Your task to perform on an android device: Search for "razer deathadder" on bestbuy, select the first entry, add it to the cart, then select checkout. Image 0: 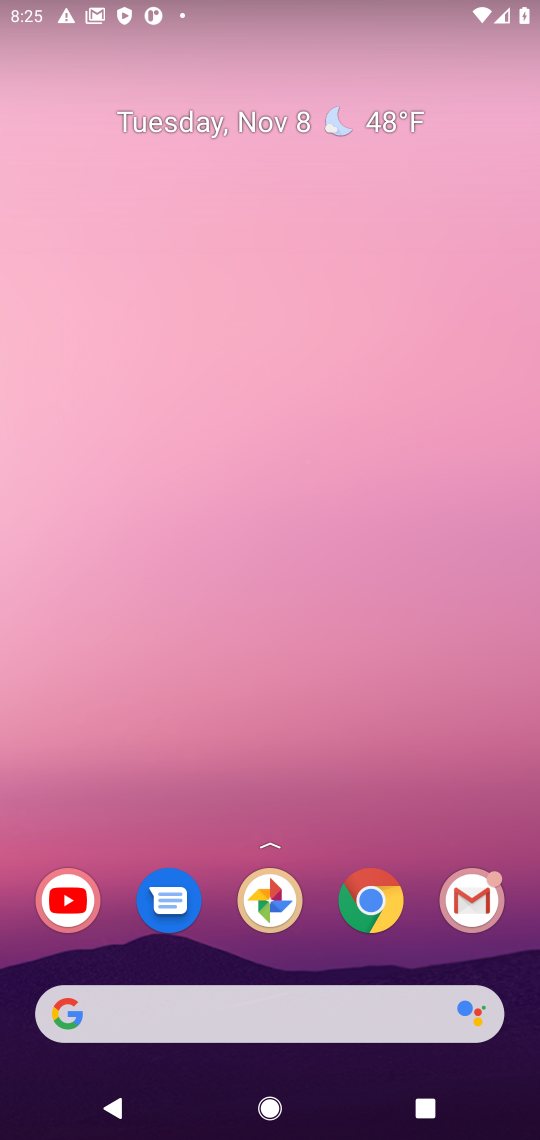
Step 0: click (365, 906)
Your task to perform on an android device: Search for "razer deathadder" on bestbuy, select the first entry, add it to the cart, then select checkout. Image 1: 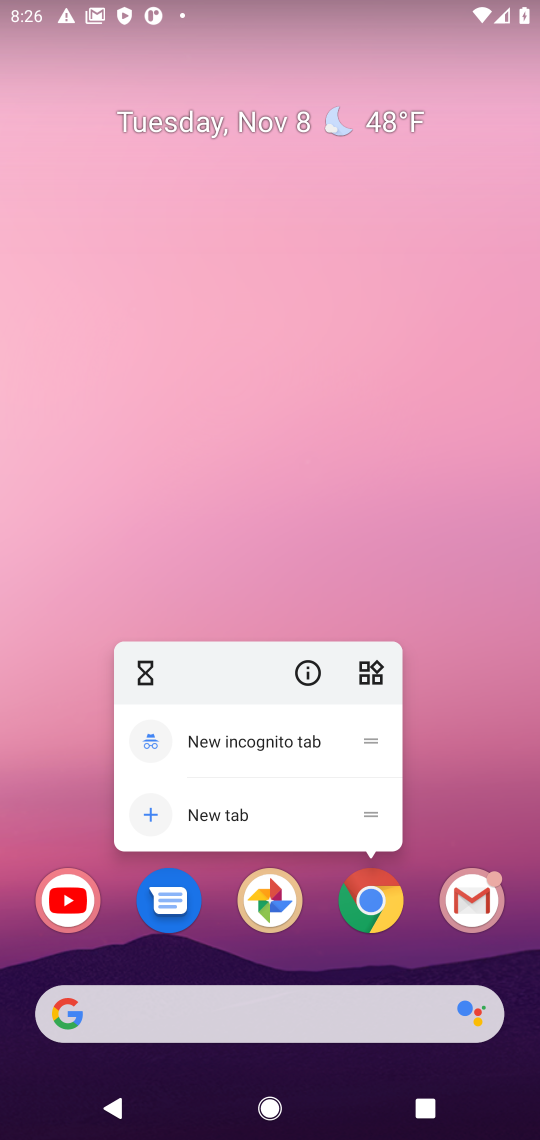
Step 1: click (391, 907)
Your task to perform on an android device: Search for "razer deathadder" on bestbuy, select the first entry, add it to the cart, then select checkout. Image 2: 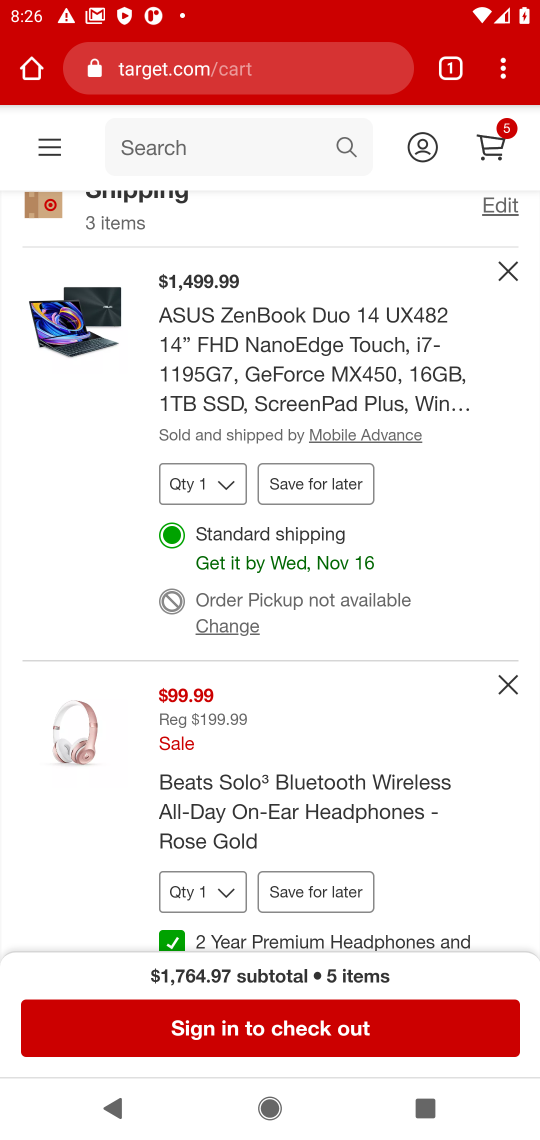
Step 2: click (148, 65)
Your task to perform on an android device: Search for "razer deathadder" on bestbuy, select the first entry, add it to the cart, then select checkout. Image 3: 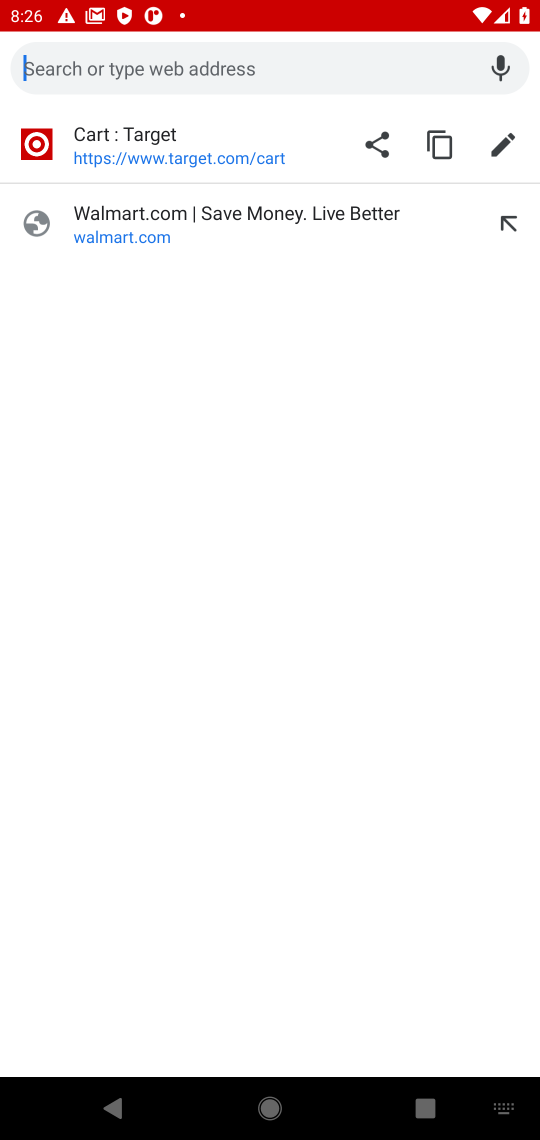
Step 3: type "bestbuy"
Your task to perform on an android device: Search for "razer deathadder" on bestbuy, select the first entry, add it to the cart, then select checkout. Image 4: 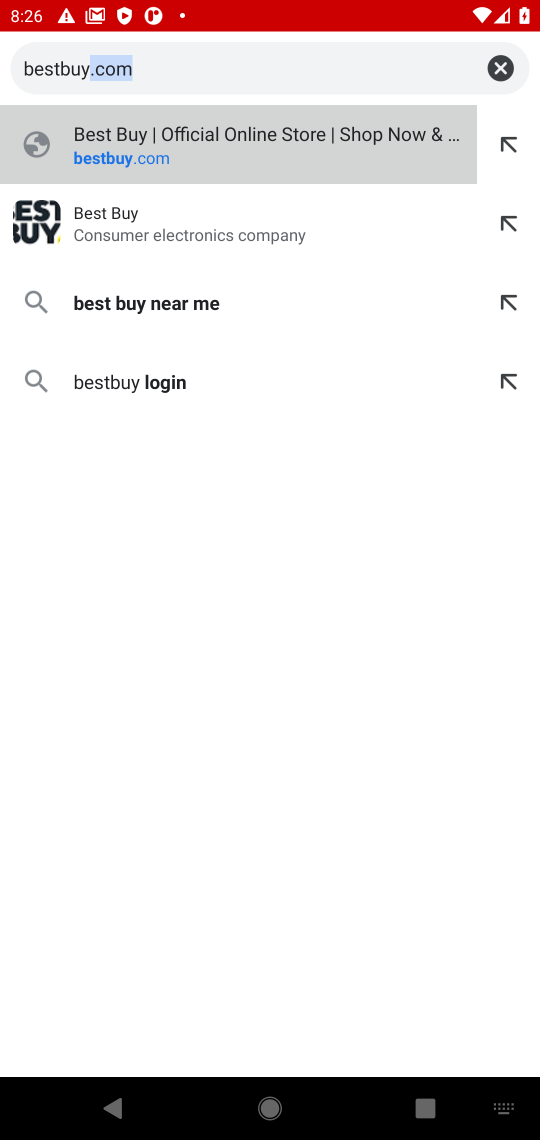
Step 4: click (118, 242)
Your task to perform on an android device: Search for "razer deathadder" on bestbuy, select the first entry, add it to the cart, then select checkout. Image 5: 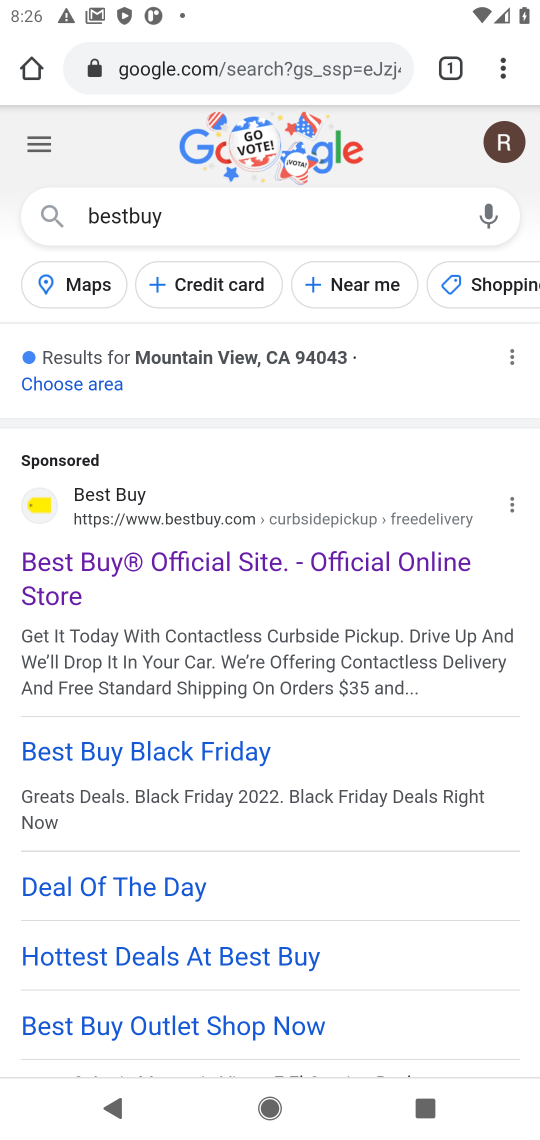
Step 5: drag from (288, 676) to (304, 91)
Your task to perform on an android device: Search for "razer deathadder" on bestbuy, select the first entry, add it to the cart, then select checkout. Image 6: 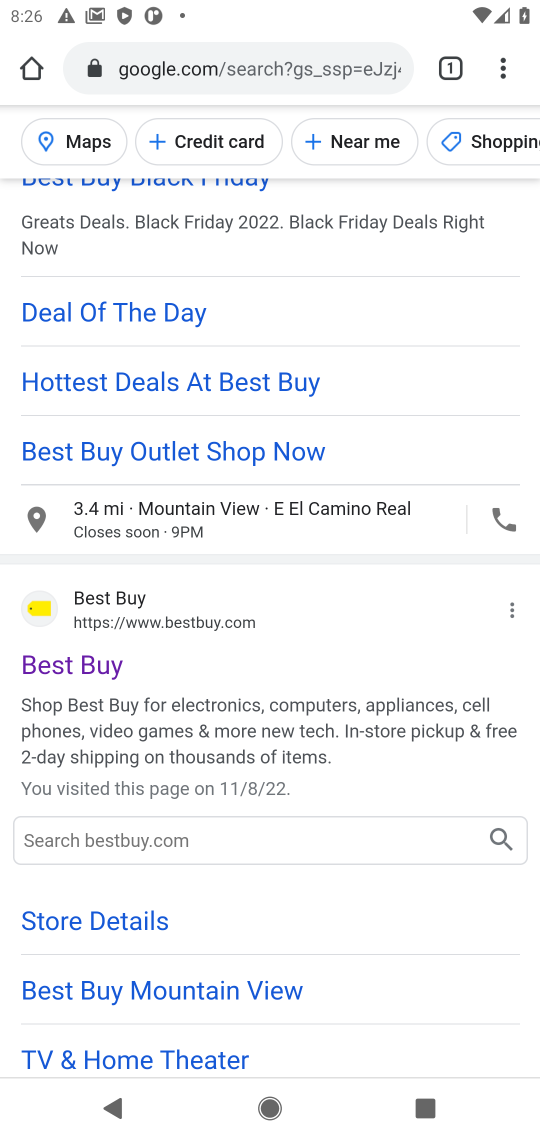
Step 6: click (100, 663)
Your task to perform on an android device: Search for "razer deathadder" on bestbuy, select the first entry, add it to the cart, then select checkout. Image 7: 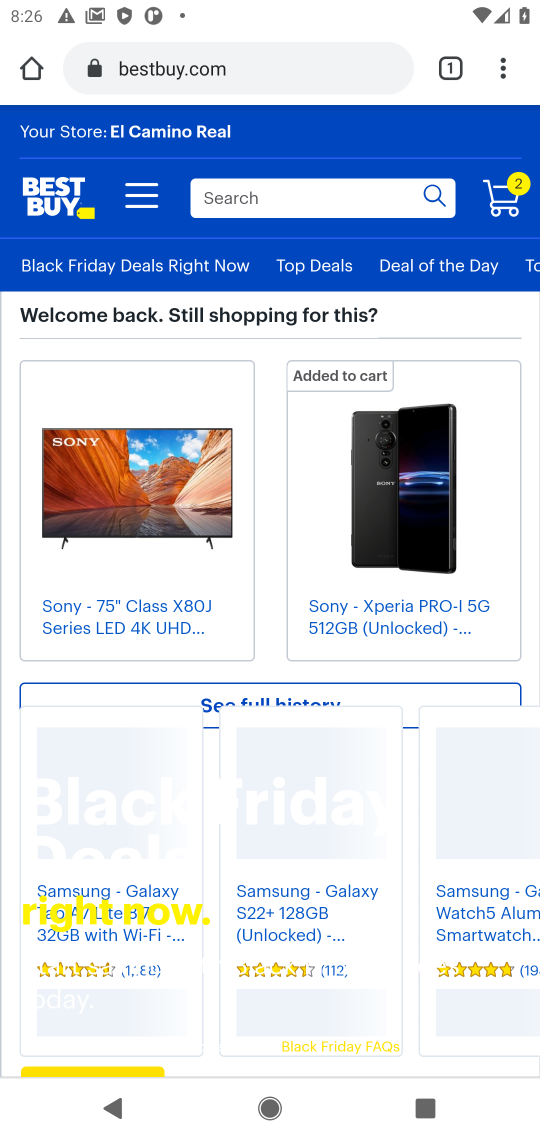
Step 7: click (256, 195)
Your task to perform on an android device: Search for "razer deathadder" on bestbuy, select the first entry, add it to the cart, then select checkout. Image 8: 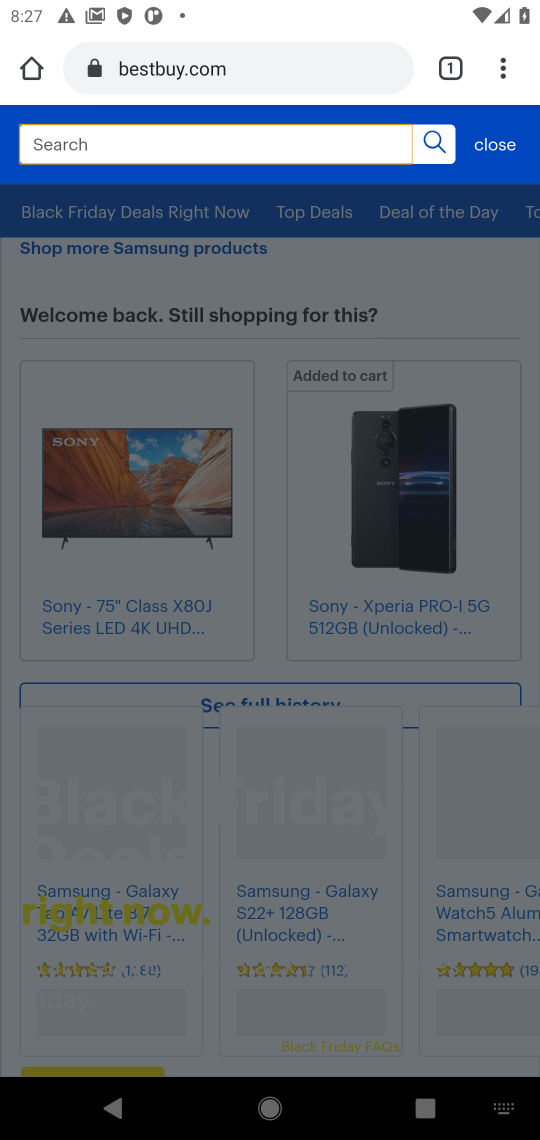
Step 8: type "razer deathadder"
Your task to perform on an android device: Search for "razer deathadder" on bestbuy, select the first entry, add it to the cart, then select checkout. Image 9: 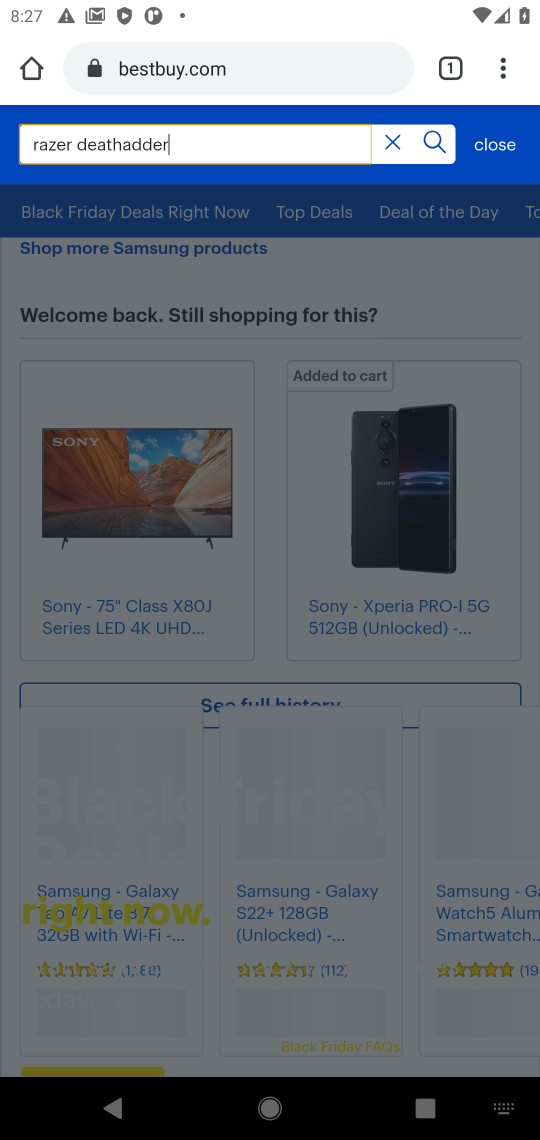
Step 9: type ""
Your task to perform on an android device: Search for "razer deathadder" on bestbuy, select the first entry, add it to the cart, then select checkout. Image 10: 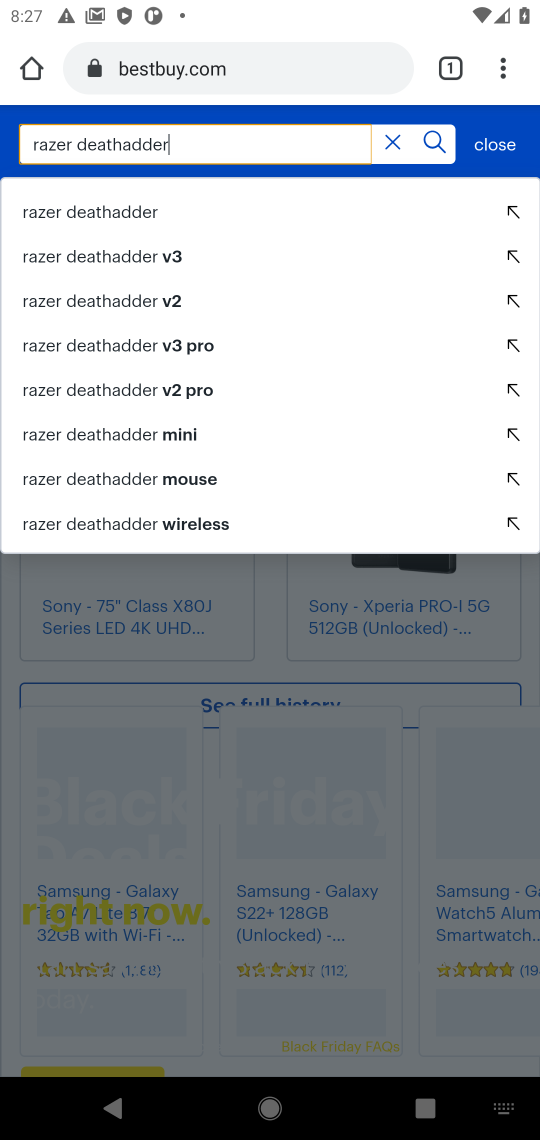
Step 10: click (104, 216)
Your task to perform on an android device: Search for "razer deathadder" on bestbuy, select the first entry, add it to the cart, then select checkout. Image 11: 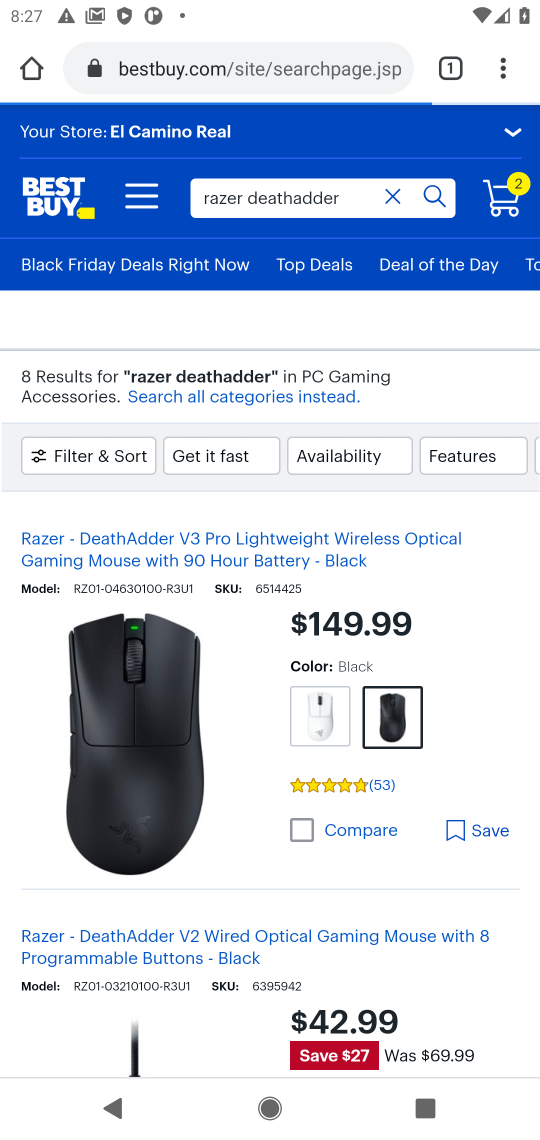
Step 11: drag from (148, 820) to (159, 468)
Your task to perform on an android device: Search for "razer deathadder" on bestbuy, select the first entry, add it to the cart, then select checkout. Image 12: 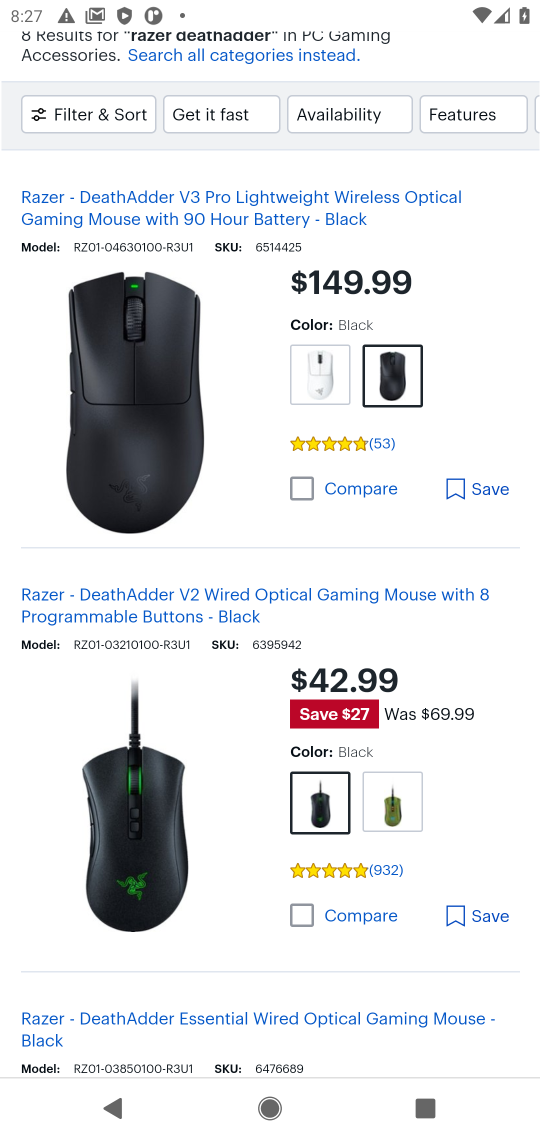
Step 12: click (145, 345)
Your task to perform on an android device: Search for "razer deathadder" on bestbuy, select the first entry, add it to the cart, then select checkout. Image 13: 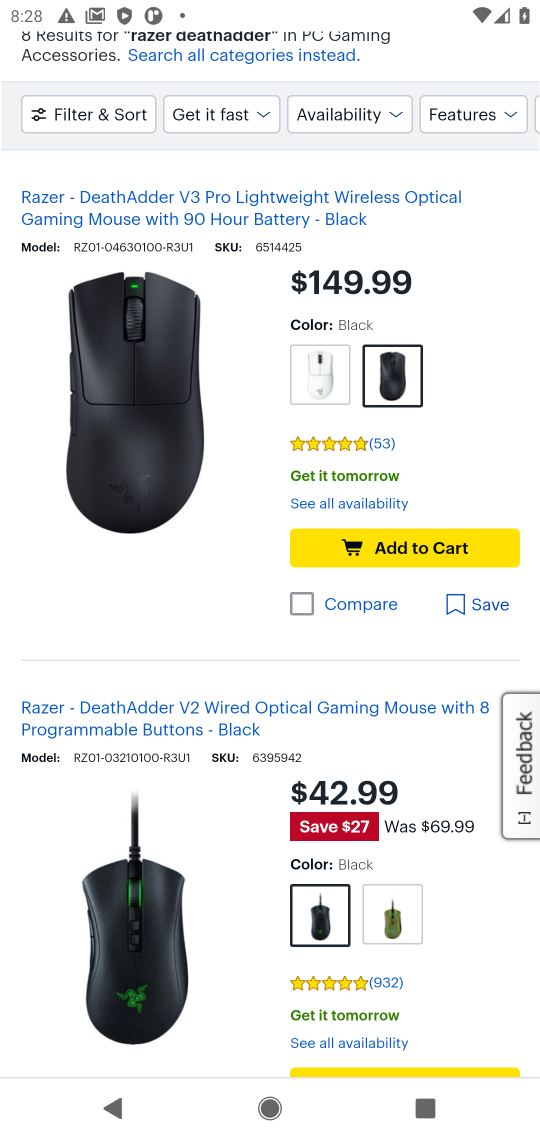
Step 13: click (449, 541)
Your task to perform on an android device: Search for "razer deathadder" on bestbuy, select the first entry, add it to the cart, then select checkout. Image 14: 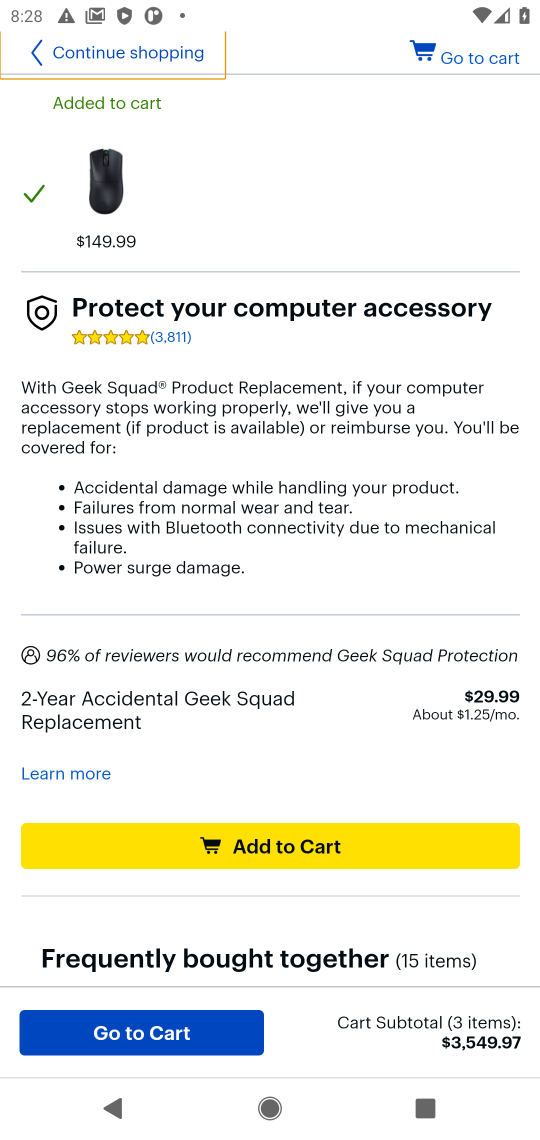
Step 14: click (293, 849)
Your task to perform on an android device: Search for "razer deathadder" on bestbuy, select the first entry, add it to the cart, then select checkout. Image 15: 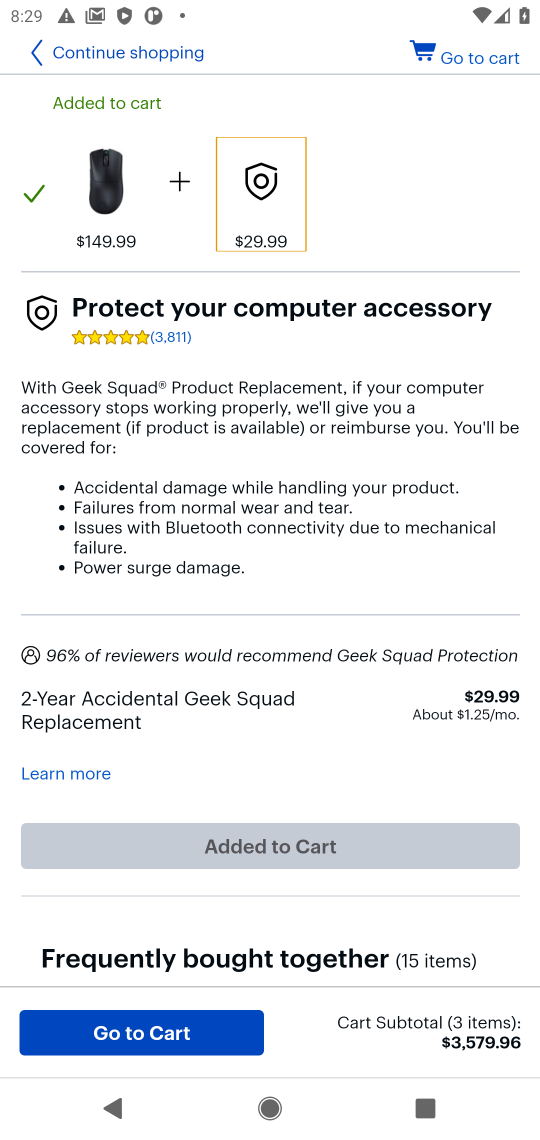
Step 15: click (162, 1032)
Your task to perform on an android device: Search for "razer deathadder" on bestbuy, select the first entry, add it to the cart, then select checkout. Image 16: 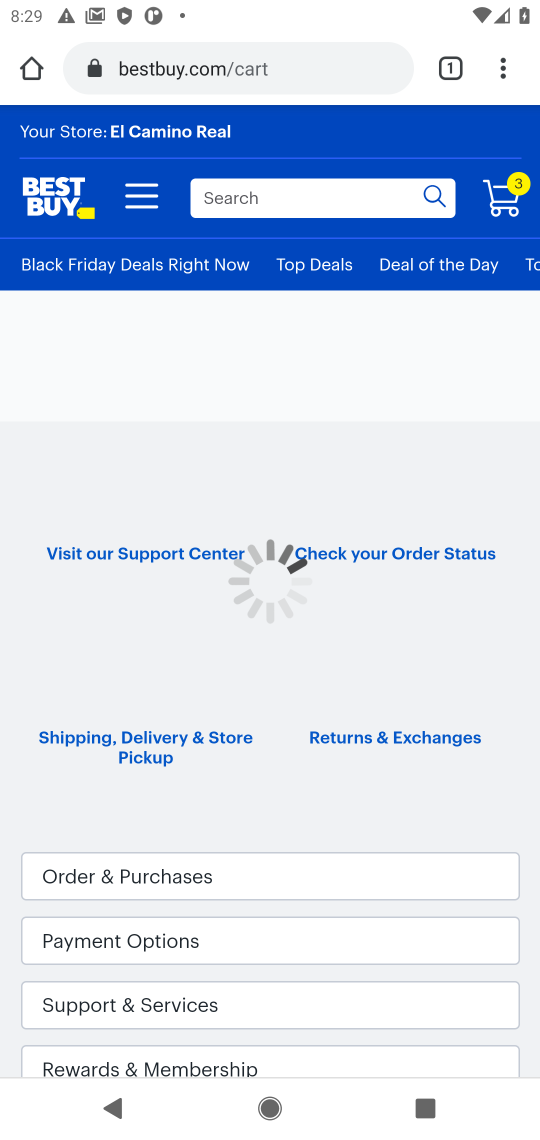
Step 16: click (504, 196)
Your task to perform on an android device: Search for "razer deathadder" on bestbuy, select the first entry, add it to the cart, then select checkout. Image 17: 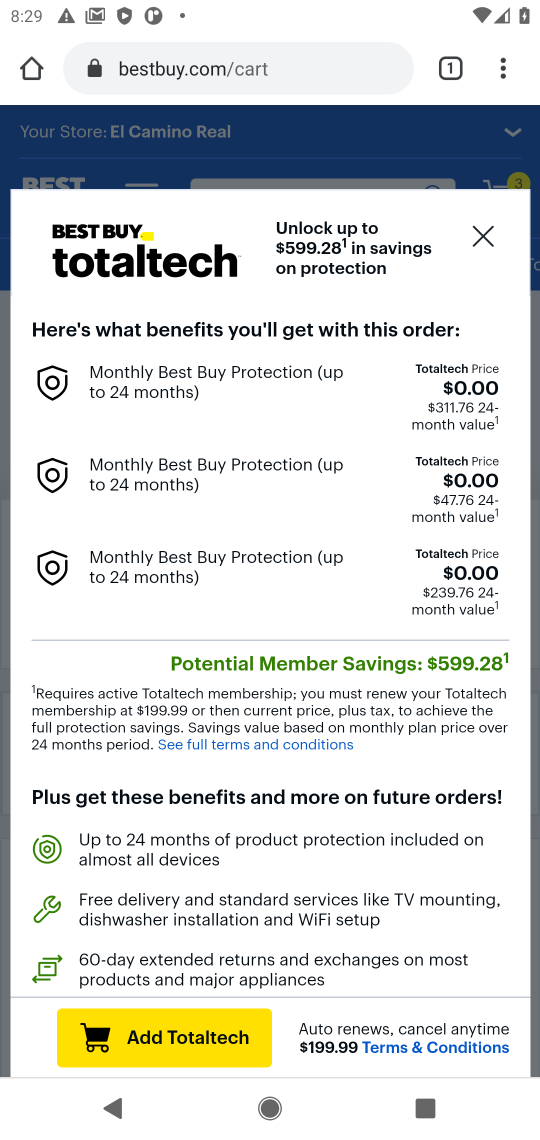
Step 17: click (489, 241)
Your task to perform on an android device: Search for "razer deathadder" on bestbuy, select the first entry, add it to the cart, then select checkout. Image 18: 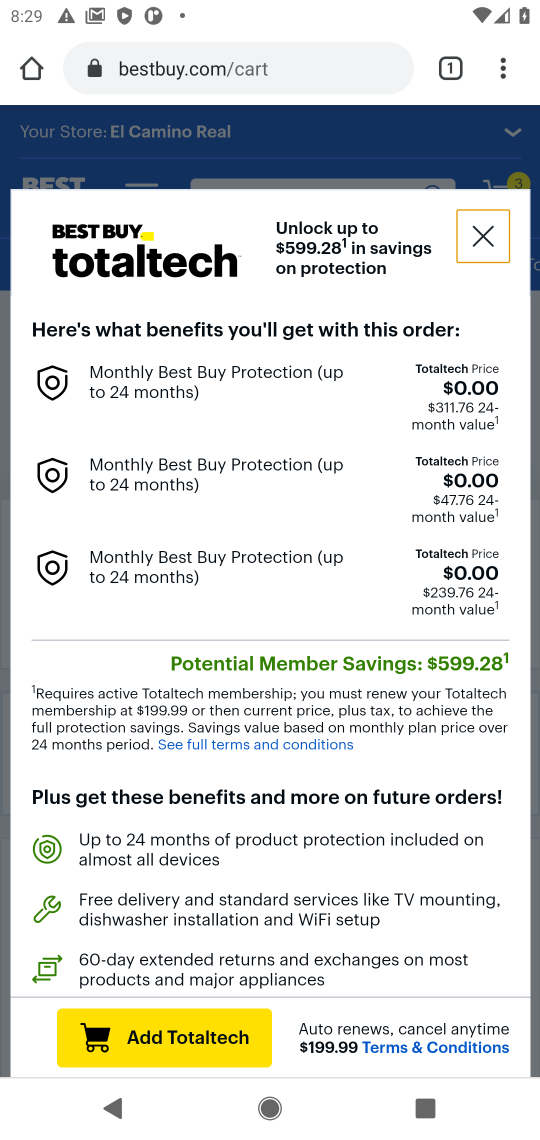
Step 18: click (487, 239)
Your task to perform on an android device: Search for "razer deathadder" on bestbuy, select the first entry, add it to the cart, then select checkout. Image 19: 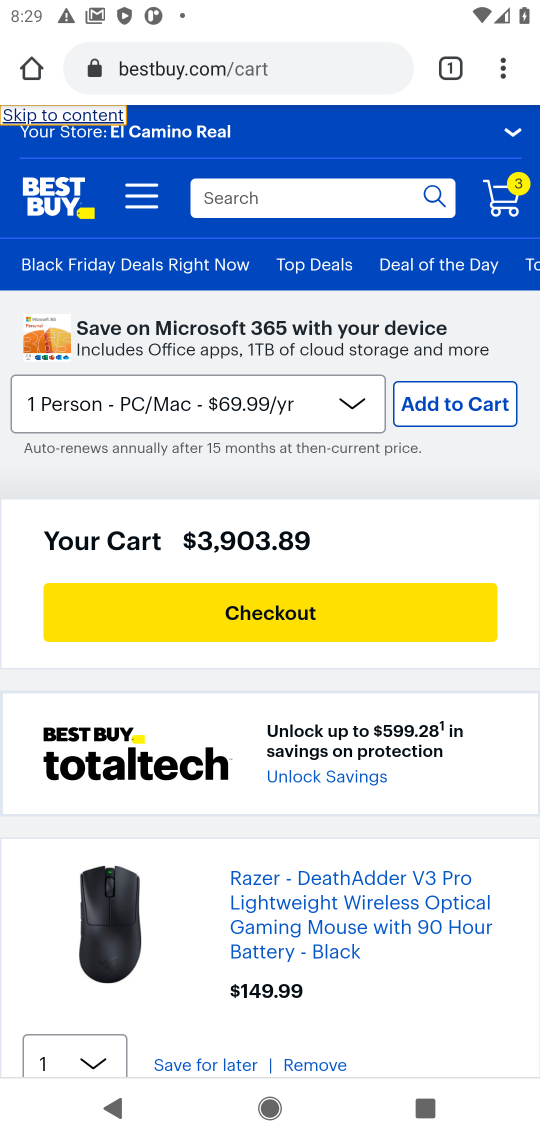
Step 19: click (281, 624)
Your task to perform on an android device: Search for "razer deathadder" on bestbuy, select the first entry, add it to the cart, then select checkout. Image 20: 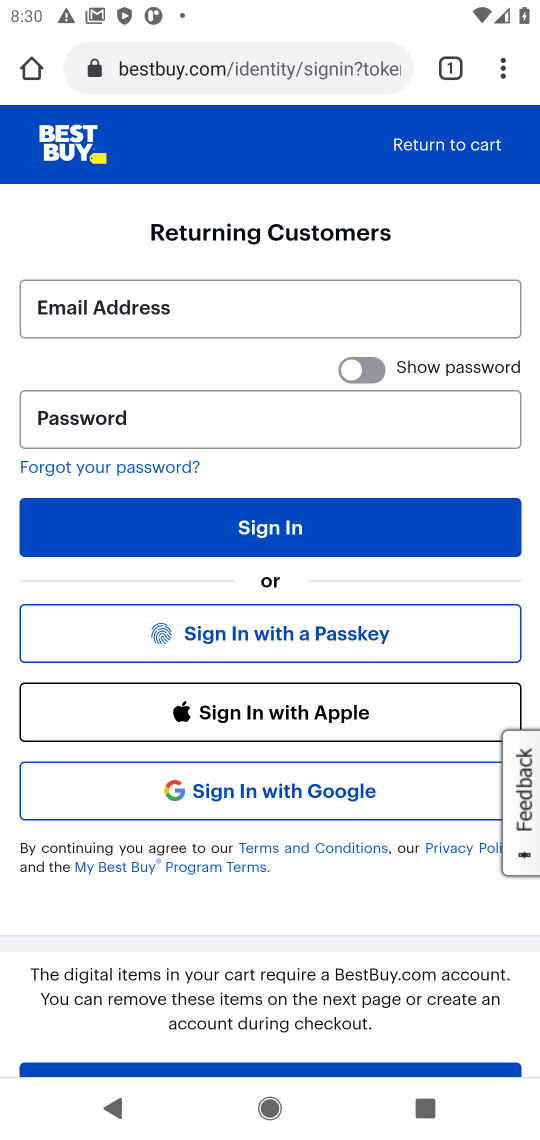
Step 20: task complete